Your task to perform on an android device: check data usage Image 0: 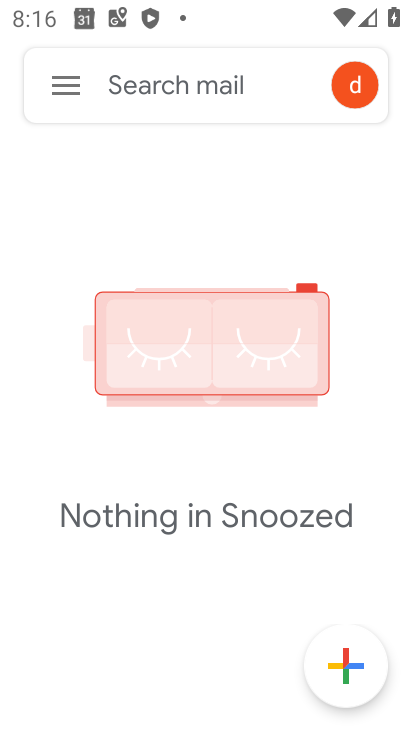
Step 0: press home button
Your task to perform on an android device: check data usage Image 1: 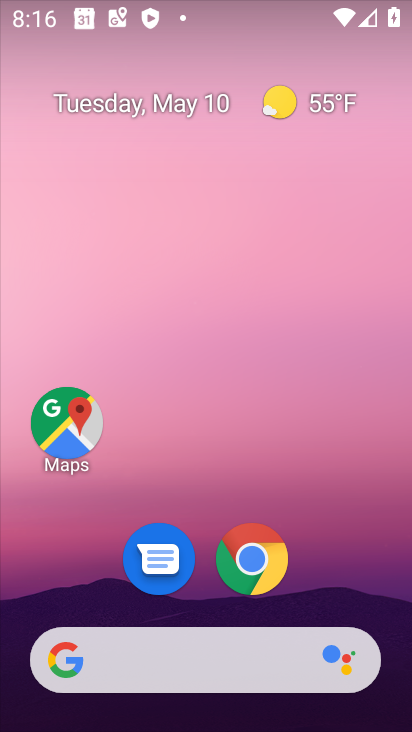
Step 1: drag from (201, 728) to (182, 281)
Your task to perform on an android device: check data usage Image 2: 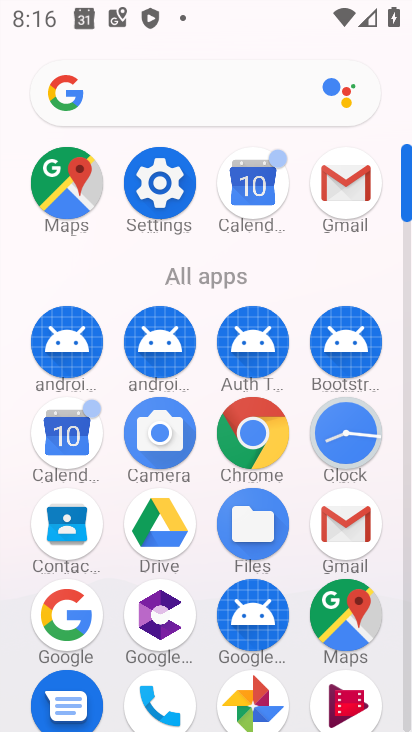
Step 2: click (166, 189)
Your task to perform on an android device: check data usage Image 3: 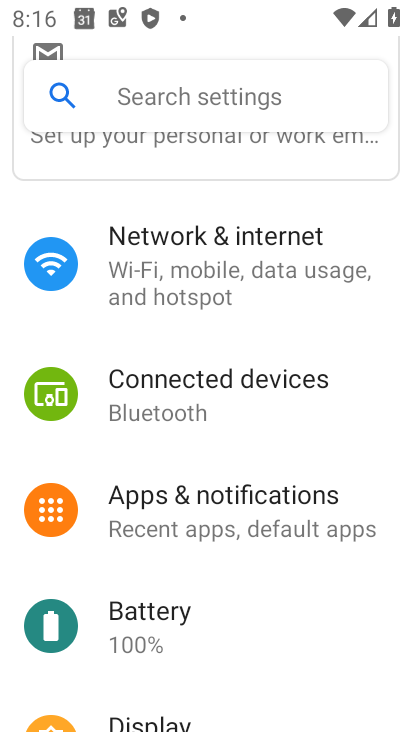
Step 3: click (195, 251)
Your task to perform on an android device: check data usage Image 4: 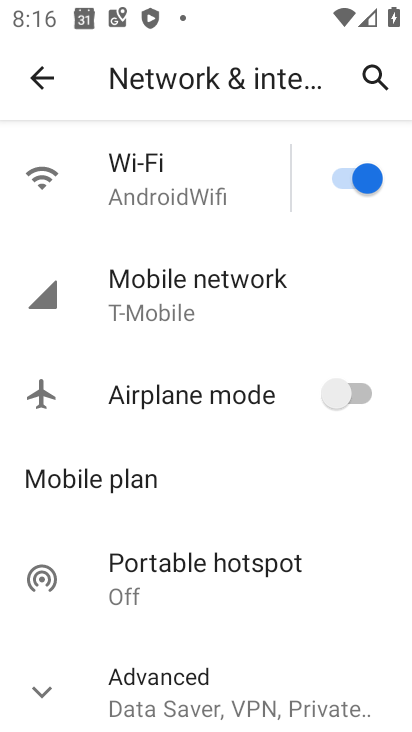
Step 4: click (176, 277)
Your task to perform on an android device: check data usage Image 5: 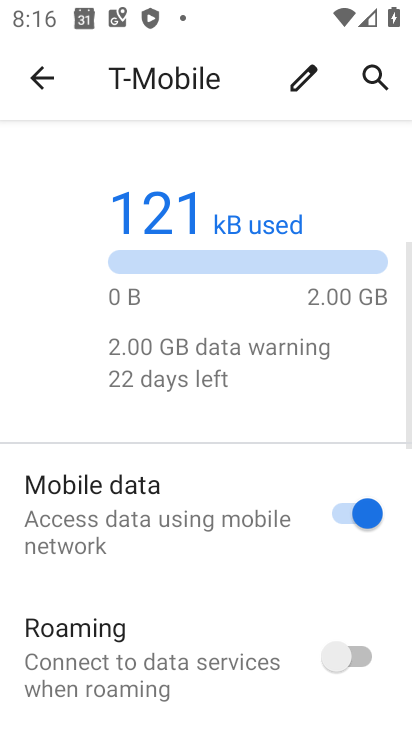
Step 5: drag from (147, 618) to (159, 302)
Your task to perform on an android device: check data usage Image 6: 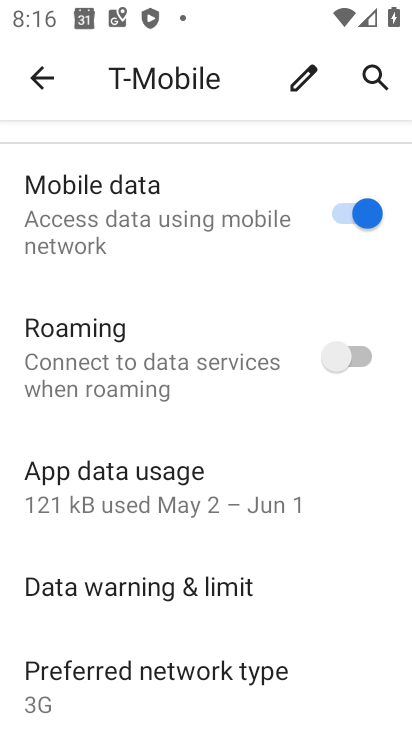
Step 6: click (139, 485)
Your task to perform on an android device: check data usage Image 7: 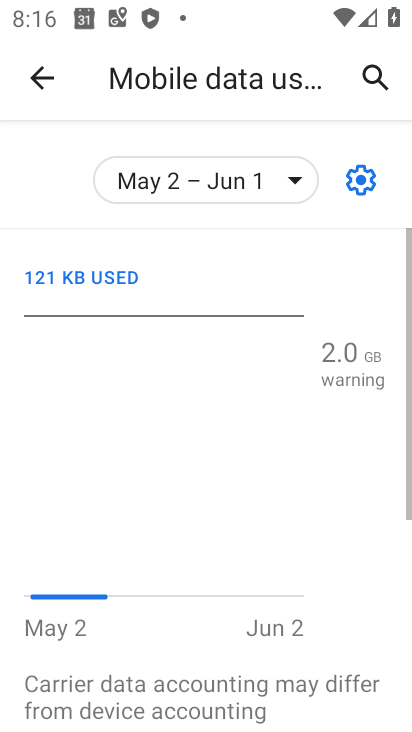
Step 7: task complete